Your task to perform on an android device: allow notifications from all sites in the chrome app Image 0: 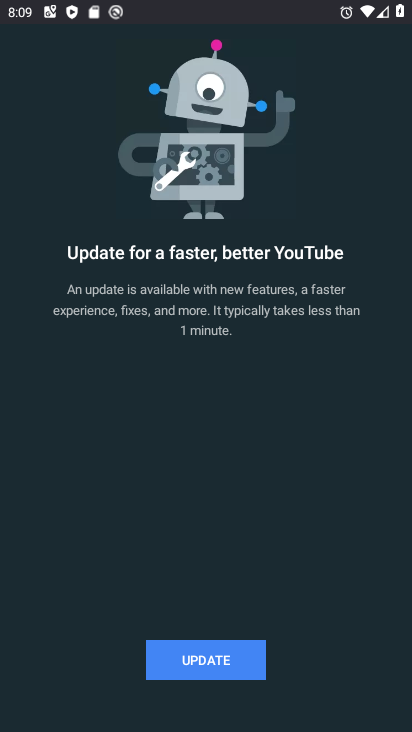
Step 0: press home button
Your task to perform on an android device: allow notifications from all sites in the chrome app Image 1: 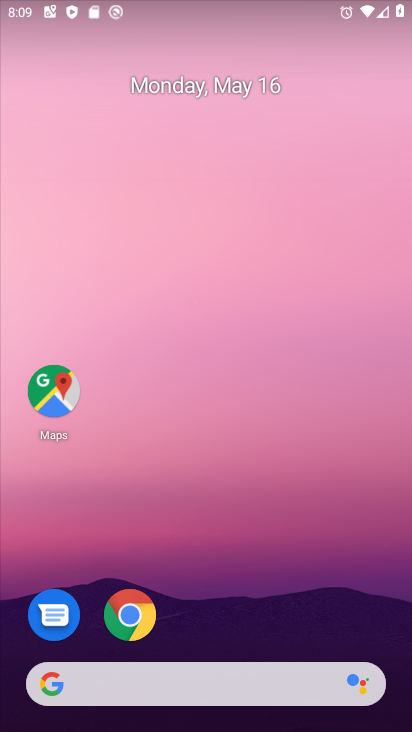
Step 1: click (132, 617)
Your task to perform on an android device: allow notifications from all sites in the chrome app Image 2: 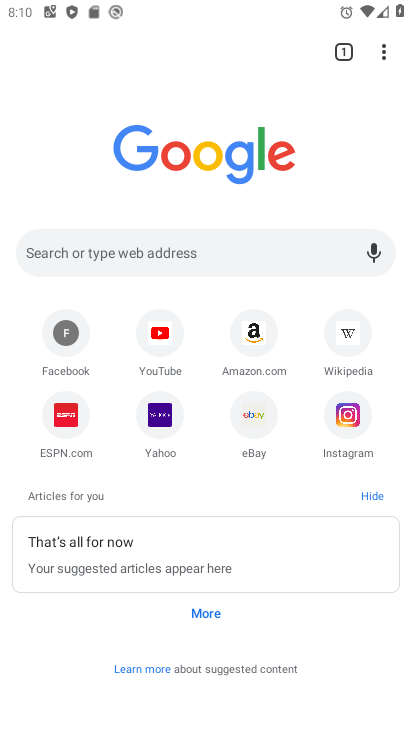
Step 2: click (377, 52)
Your task to perform on an android device: allow notifications from all sites in the chrome app Image 3: 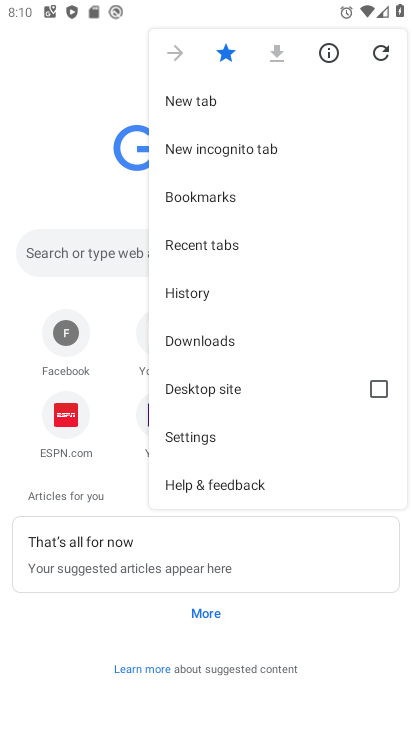
Step 3: click (200, 443)
Your task to perform on an android device: allow notifications from all sites in the chrome app Image 4: 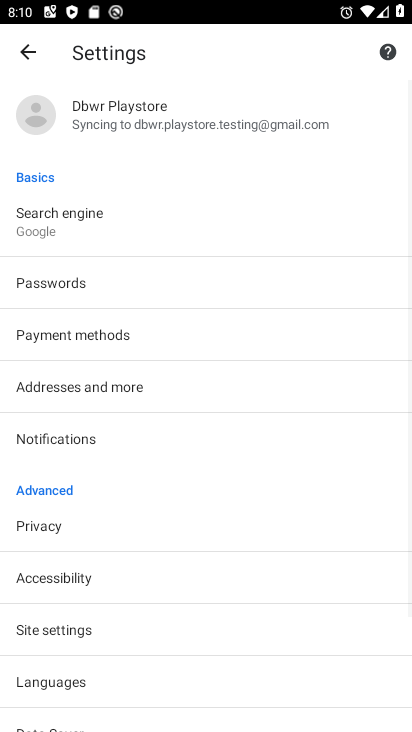
Step 4: click (170, 443)
Your task to perform on an android device: allow notifications from all sites in the chrome app Image 5: 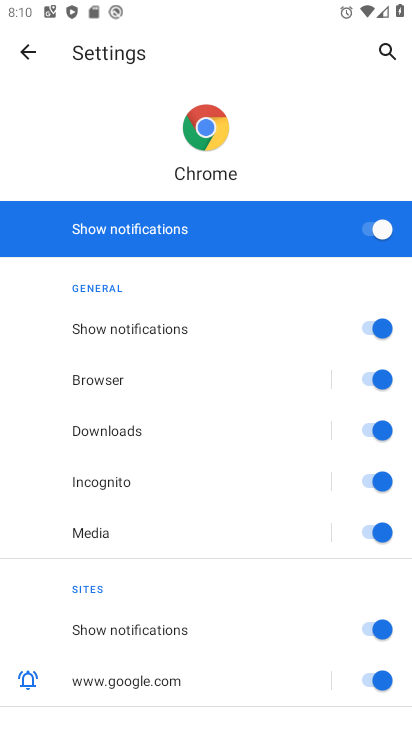
Step 5: task complete